Your task to perform on an android device: Search for Mexican restaurants on Maps Image 0: 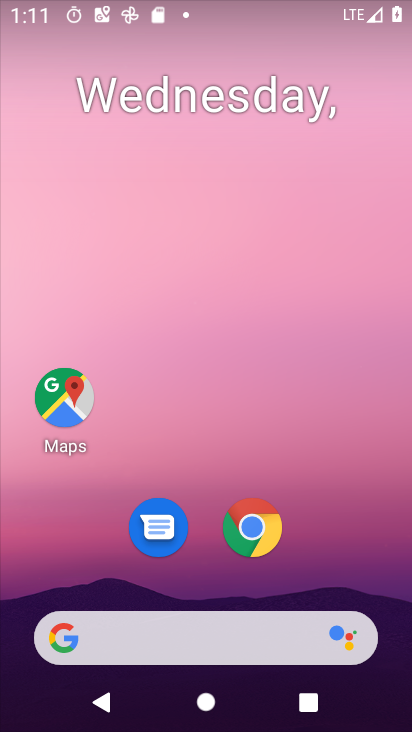
Step 0: drag from (282, 628) to (292, 42)
Your task to perform on an android device: Search for Mexican restaurants on Maps Image 1: 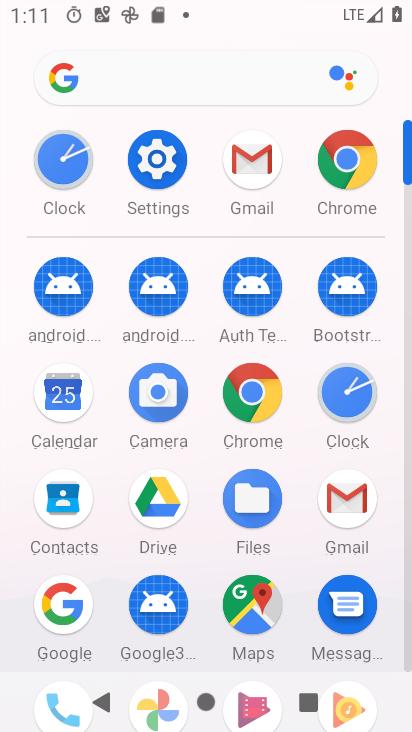
Step 1: click (253, 602)
Your task to perform on an android device: Search for Mexican restaurants on Maps Image 2: 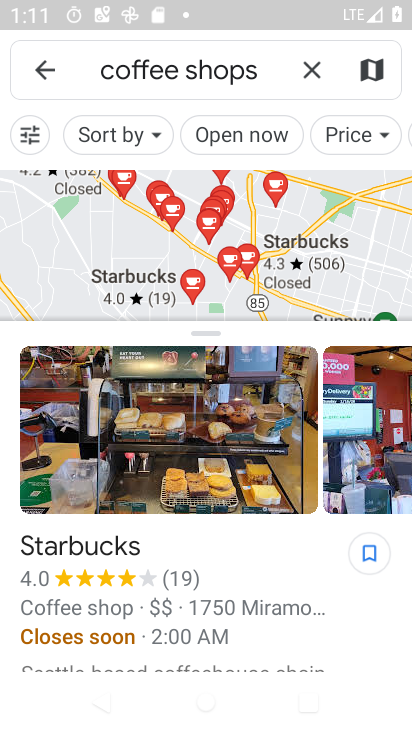
Step 2: click (306, 70)
Your task to perform on an android device: Search for Mexican restaurants on Maps Image 3: 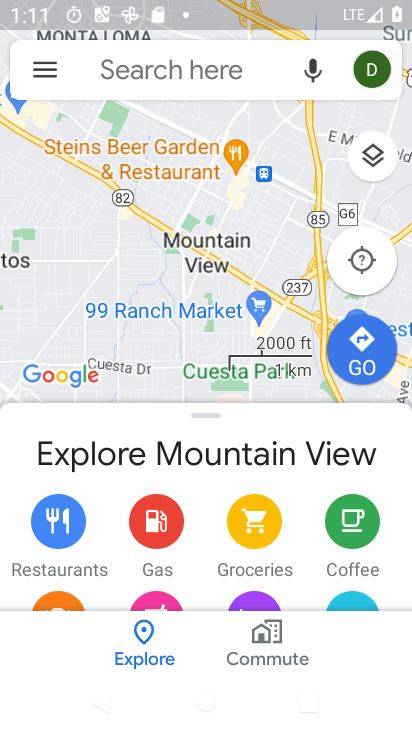
Step 3: click (253, 75)
Your task to perform on an android device: Search for Mexican restaurants on Maps Image 4: 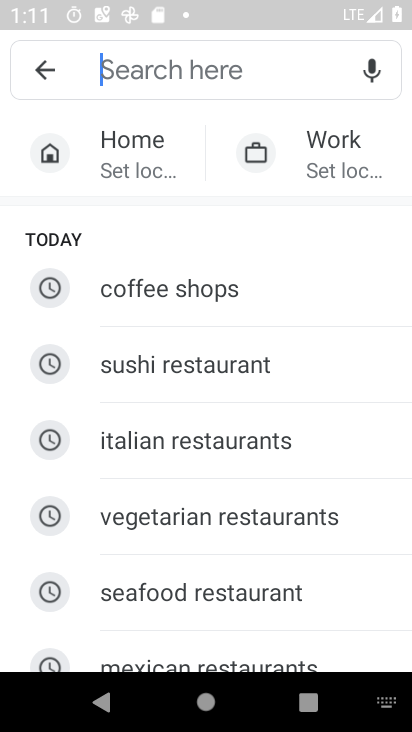
Step 4: click (273, 654)
Your task to perform on an android device: Search for Mexican restaurants on Maps Image 5: 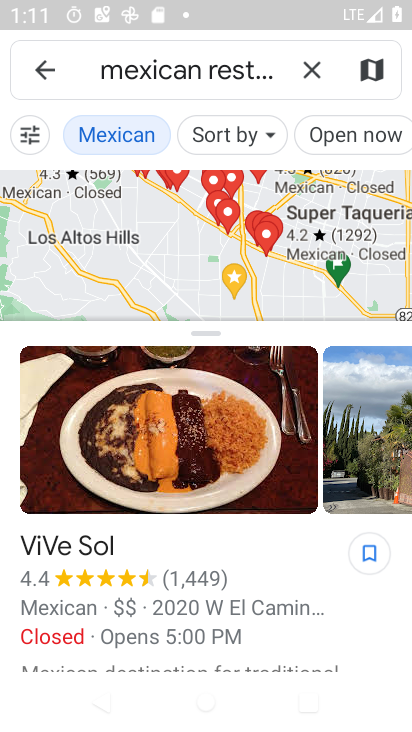
Step 5: task complete